Your task to perform on an android device: turn off smart reply in the gmail app Image 0: 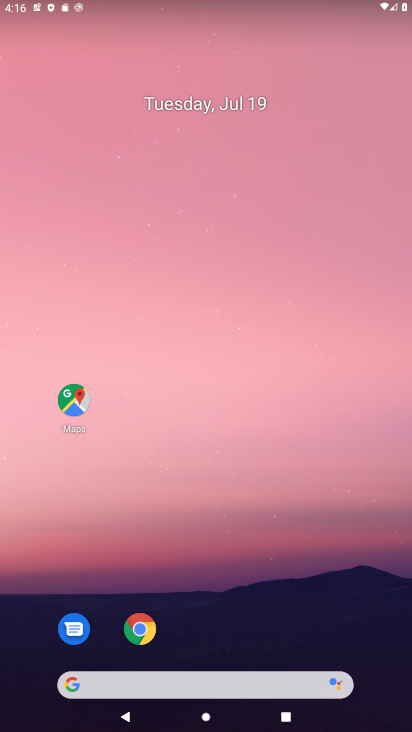
Step 0: drag from (195, 669) to (242, 218)
Your task to perform on an android device: turn off smart reply in the gmail app Image 1: 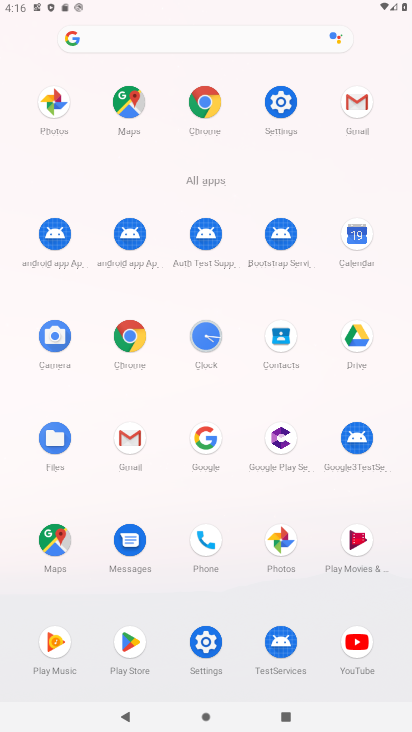
Step 1: click (346, 106)
Your task to perform on an android device: turn off smart reply in the gmail app Image 2: 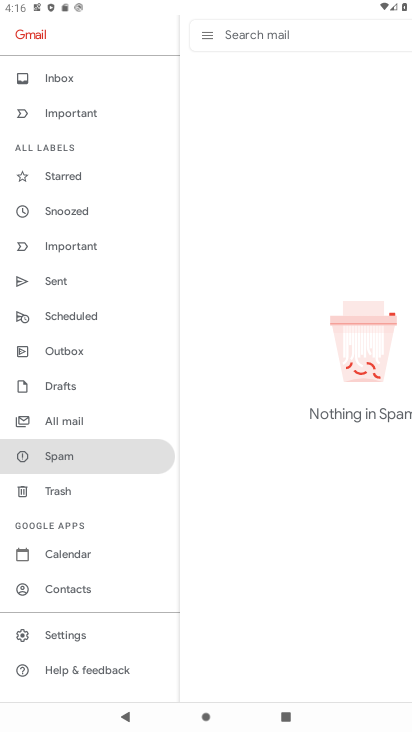
Step 2: click (66, 632)
Your task to perform on an android device: turn off smart reply in the gmail app Image 3: 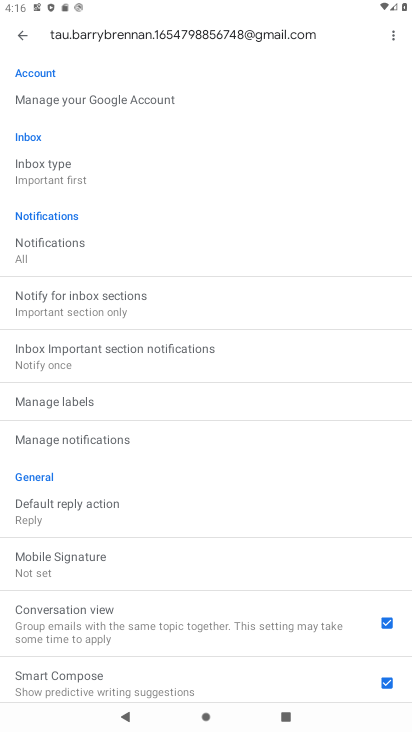
Step 3: click (79, 245)
Your task to perform on an android device: turn off smart reply in the gmail app Image 4: 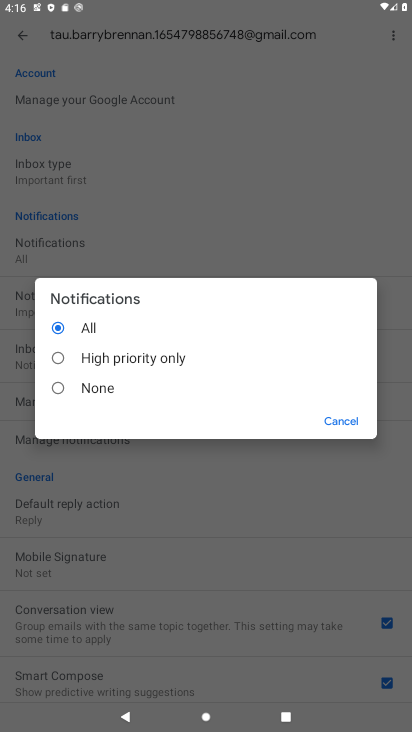
Step 4: click (317, 417)
Your task to perform on an android device: turn off smart reply in the gmail app Image 5: 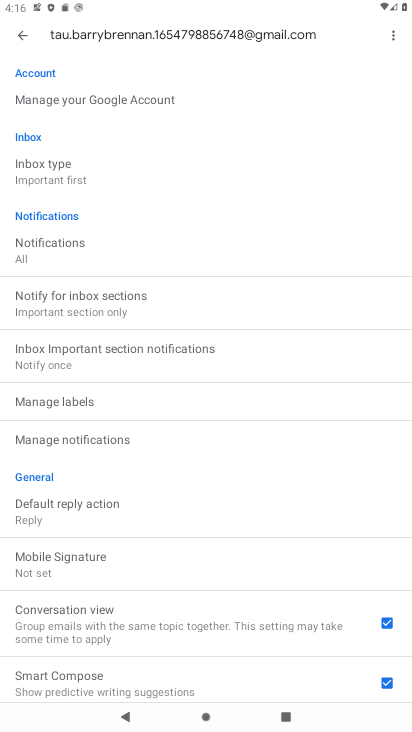
Step 5: drag from (143, 678) to (188, 301)
Your task to perform on an android device: turn off smart reply in the gmail app Image 6: 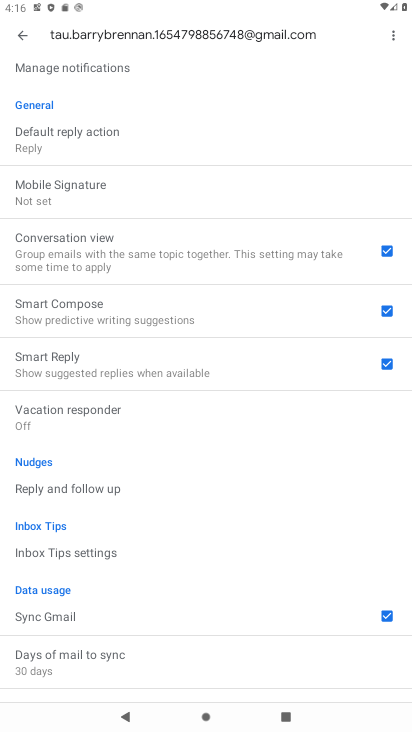
Step 6: click (384, 367)
Your task to perform on an android device: turn off smart reply in the gmail app Image 7: 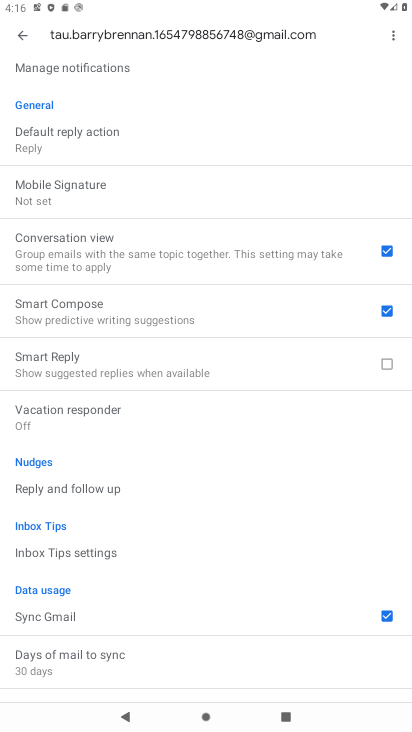
Step 7: task complete